Your task to perform on an android device: Go to eBay Image 0: 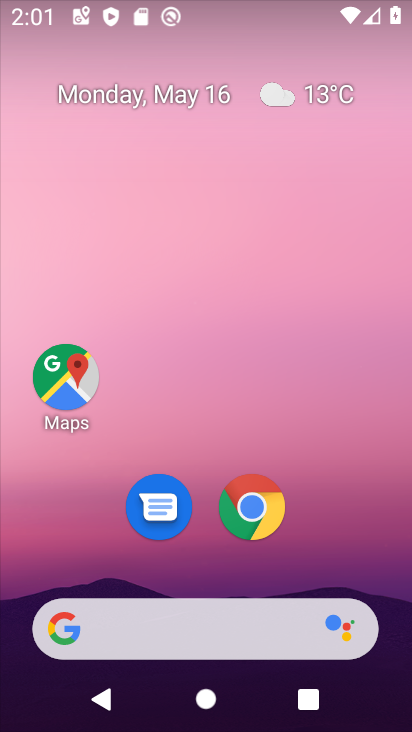
Step 0: drag from (341, 537) to (336, 86)
Your task to perform on an android device: Go to eBay Image 1: 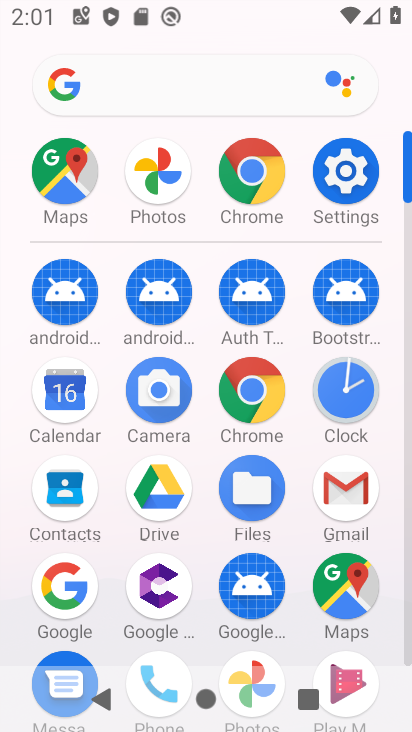
Step 1: click (237, 398)
Your task to perform on an android device: Go to eBay Image 2: 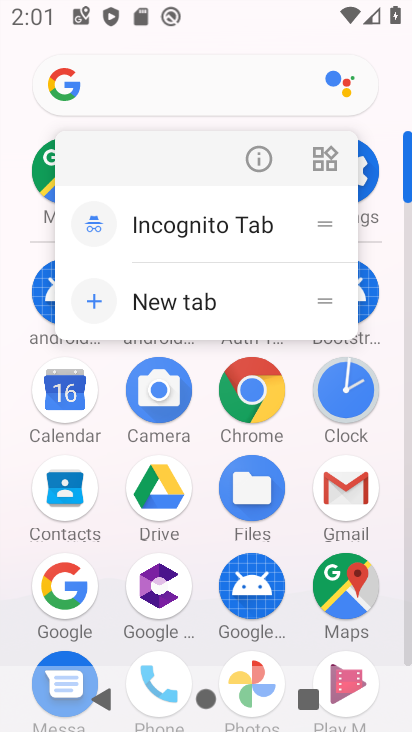
Step 2: click (237, 398)
Your task to perform on an android device: Go to eBay Image 3: 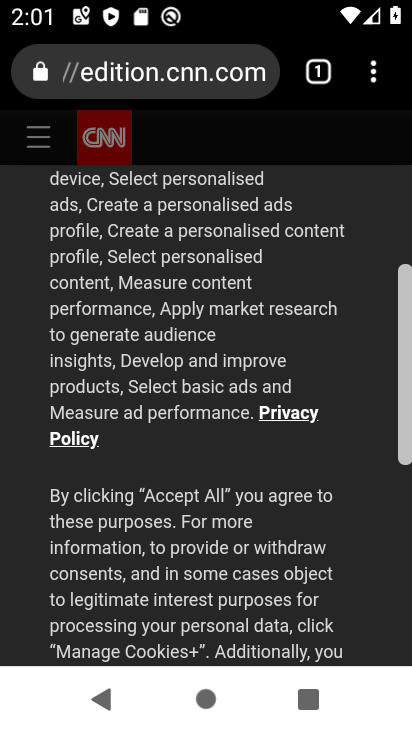
Step 3: click (192, 76)
Your task to perform on an android device: Go to eBay Image 4: 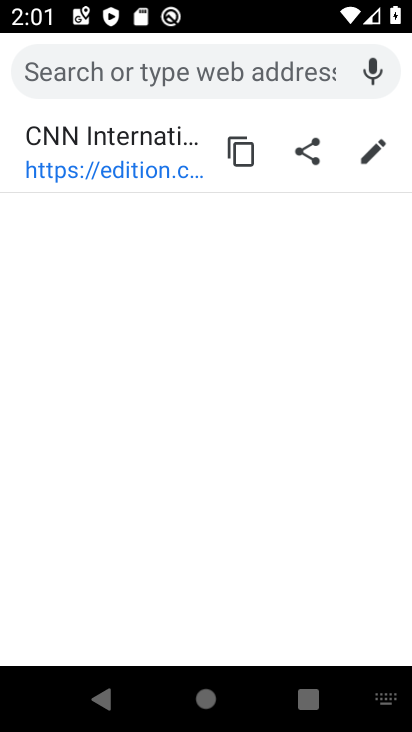
Step 4: type "ebay"
Your task to perform on an android device: Go to eBay Image 5: 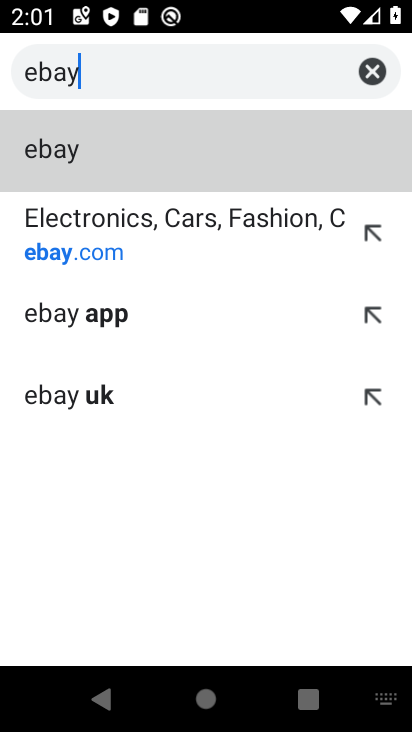
Step 5: click (71, 228)
Your task to perform on an android device: Go to eBay Image 6: 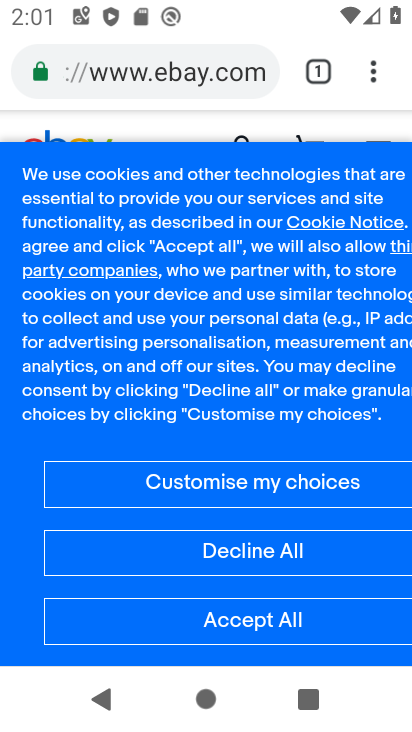
Step 6: task complete